Your task to perform on an android device: Search for Italian restaurants on Maps Image 0: 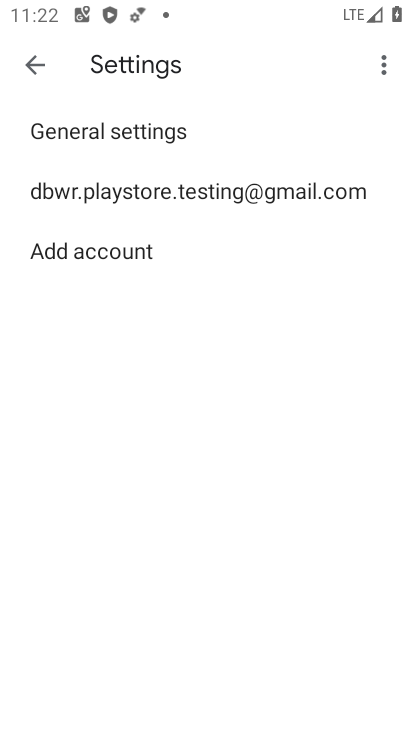
Step 0: press home button
Your task to perform on an android device: Search for Italian restaurants on Maps Image 1: 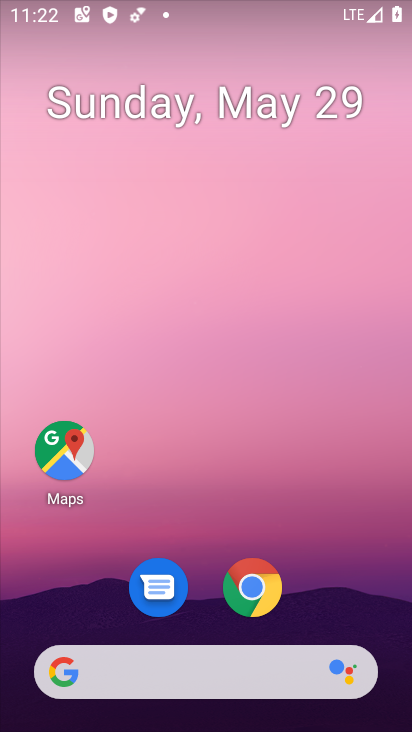
Step 1: click (57, 458)
Your task to perform on an android device: Search for Italian restaurants on Maps Image 2: 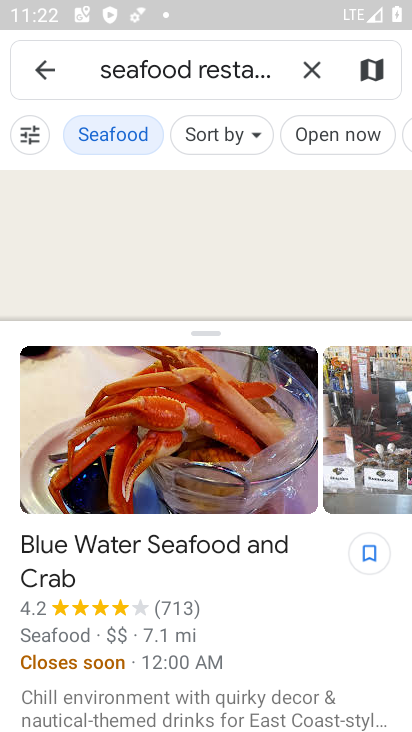
Step 2: click (216, 71)
Your task to perform on an android device: Search for Italian restaurants on Maps Image 3: 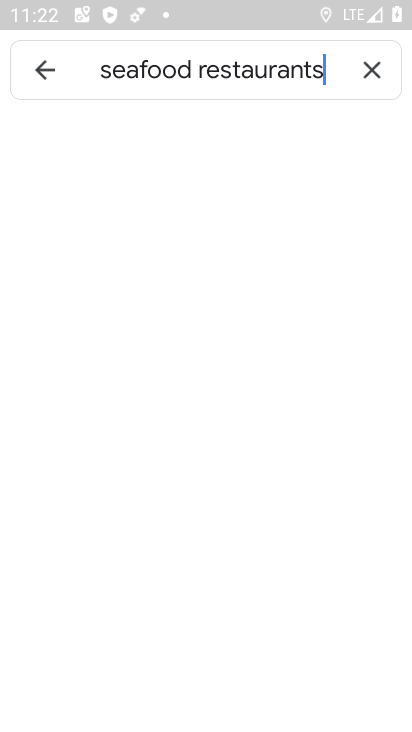
Step 3: click (375, 69)
Your task to perform on an android device: Search for Italian restaurants on Maps Image 4: 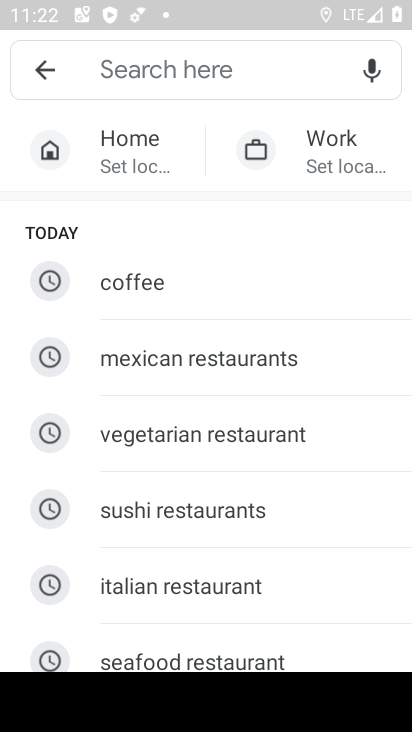
Step 4: type "Ialian restaurants"
Your task to perform on an android device: Search for Italian restaurants on Maps Image 5: 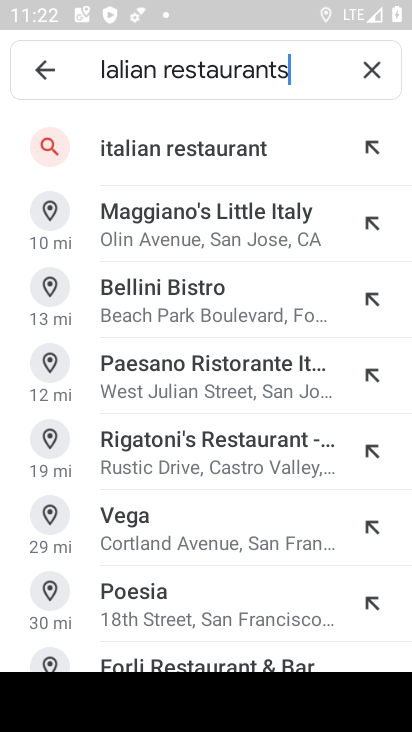
Step 5: press enter
Your task to perform on an android device: Search for Italian restaurants on Maps Image 6: 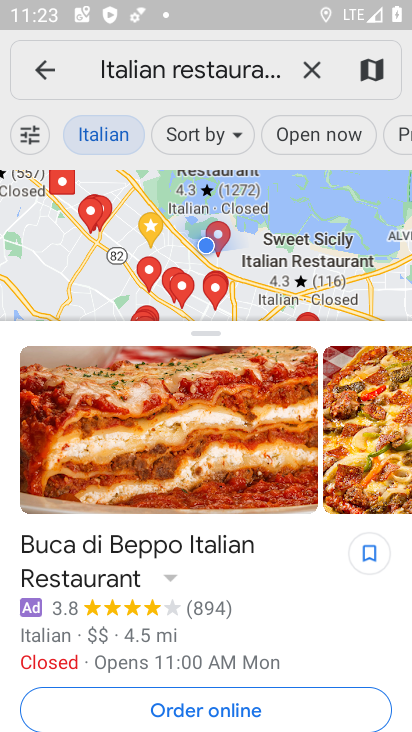
Step 6: task complete